Your task to perform on an android device: make emails show in primary in the gmail app Image 0: 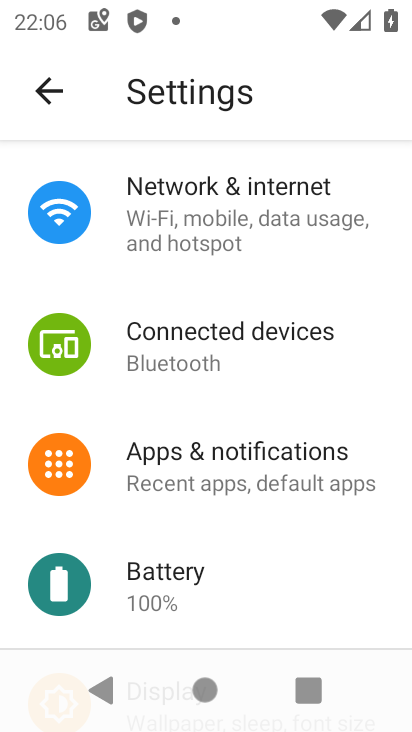
Step 0: press home button
Your task to perform on an android device: make emails show in primary in the gmail app Image 1: 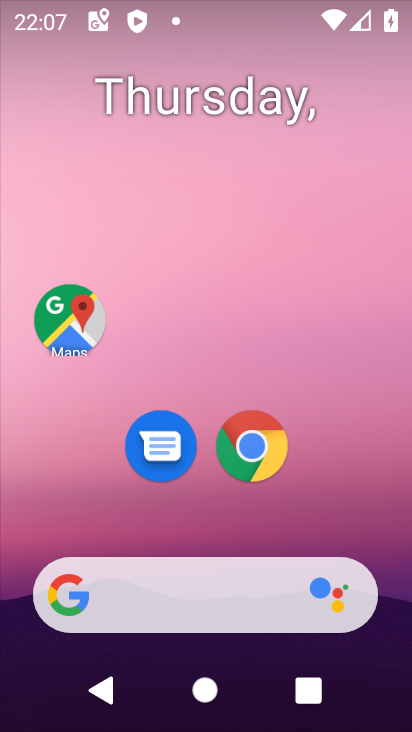
Step 1: drag from (341, 488) to (360, 75)
Your task to perform on an android device: make emails show in primary in the gmail app Image 2: 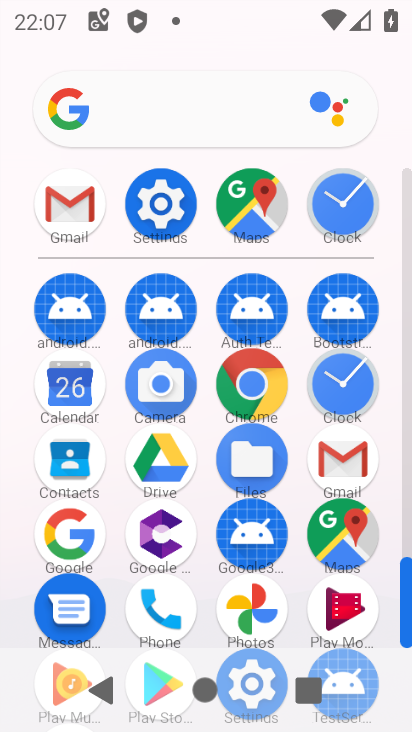
Step 2: click (73, 212)
Your task to perform on an android device: make emails show in primary in the gmail app Image 3: 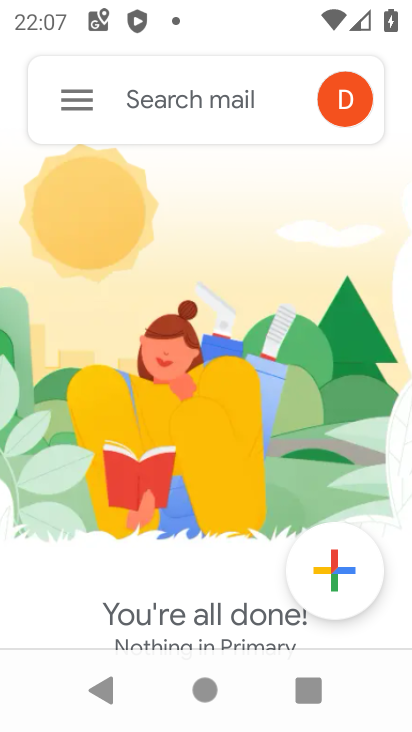
Step 3: click (73, 102)
Your task to perform on an android device: make emails show in primary in the gmail app Image 4: 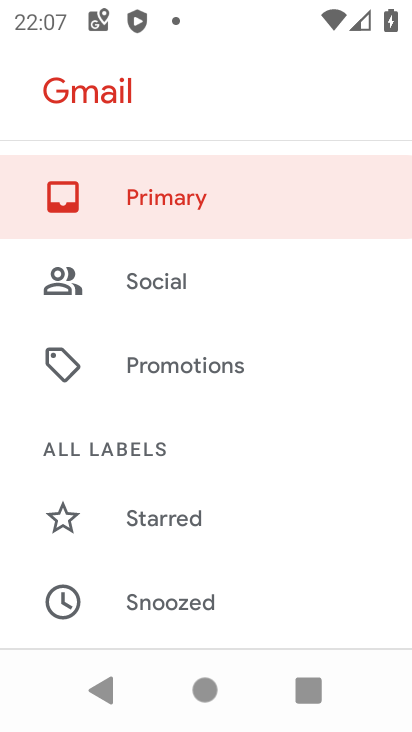
Step 4: task complete